Your task to perform on an android device: What's on my calendar today? Image 0: 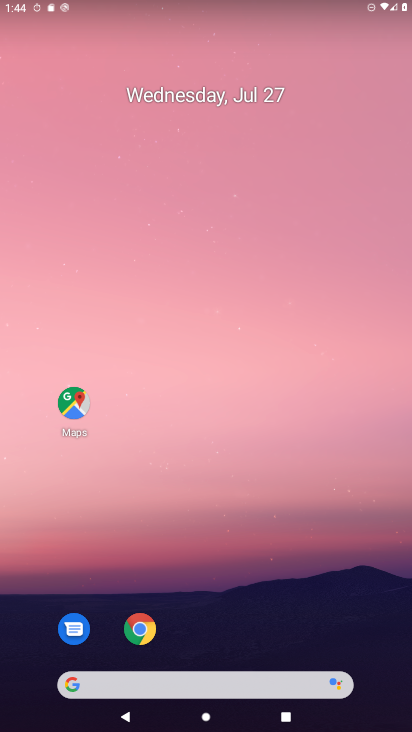
Step 0: press home button
Your task to perform on an android device: What's on my calendar today? Image 1: 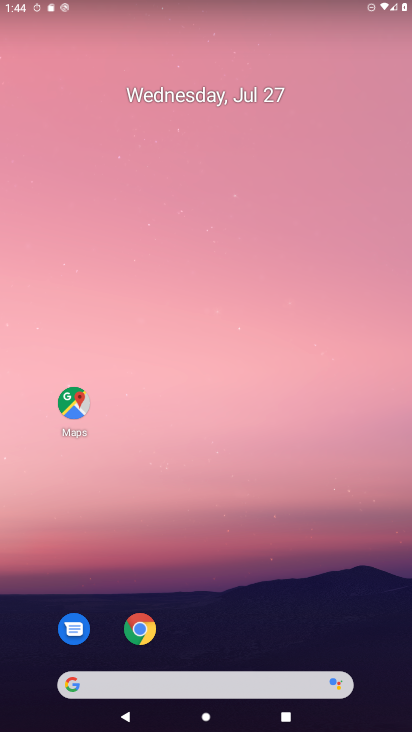
Step 1: drag from (261, 657) to (220, 84)
Your task to perform on an android device: What's on my calendar today? Image 2: 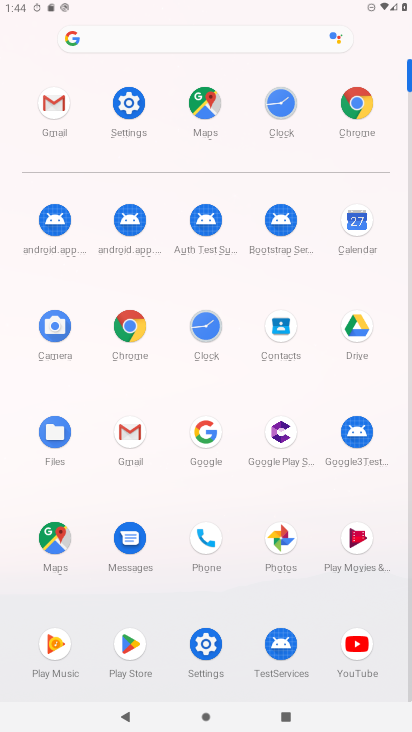
Step 2: click (363, 216)
Your task to perform on an android device: What's on my calendar today? Image 3: 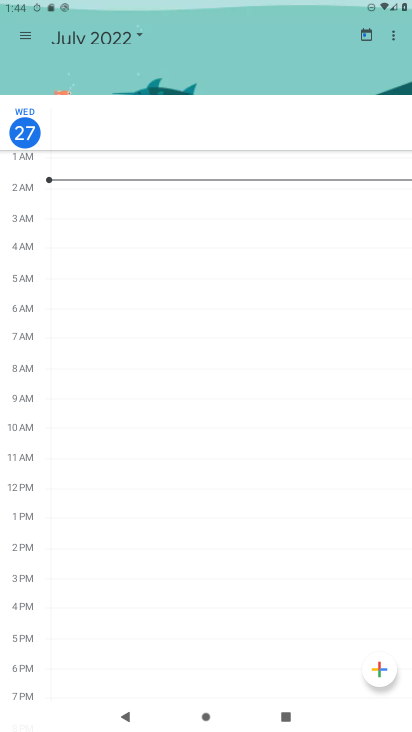
Step 3: click (135, 37)
Your task to perform on an android device: What's on my calendar today? Image 4: 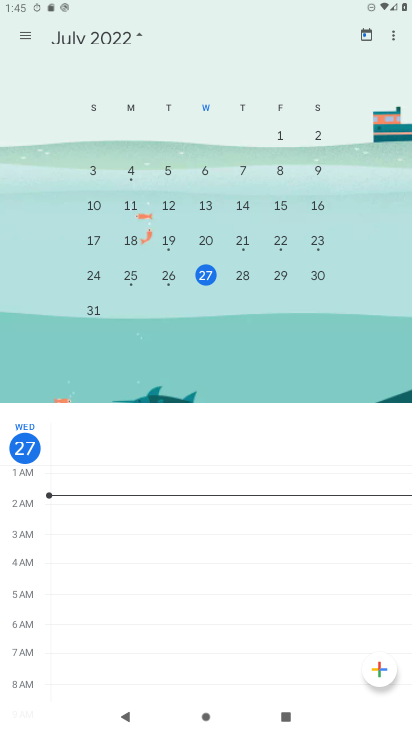
Step 4: click (200, 271)
Your task to perform on an android device: What's on my calendar today? Image 5: 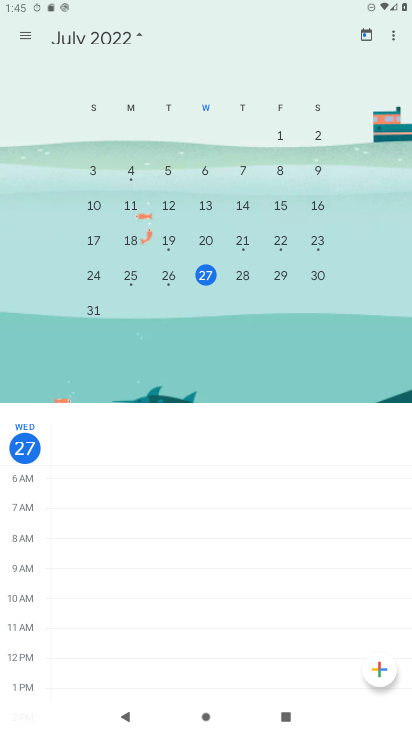
Step 5: task complete